Your task to perform on an android device: Toggle the flashlight Image 0: 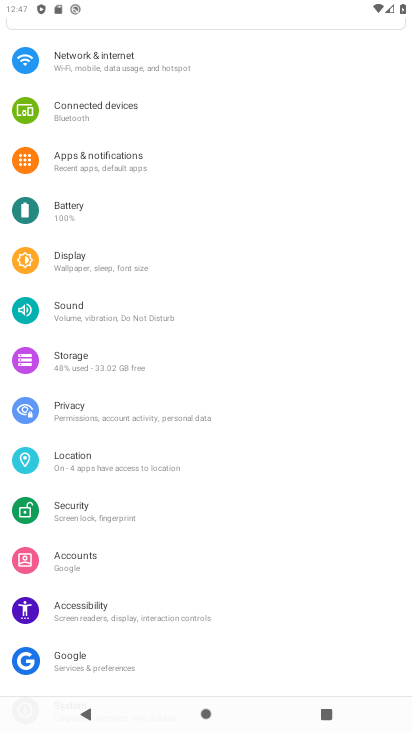
Step 0: press home button
Your task to perform on an android device: Toggle the flashlight Image 1: 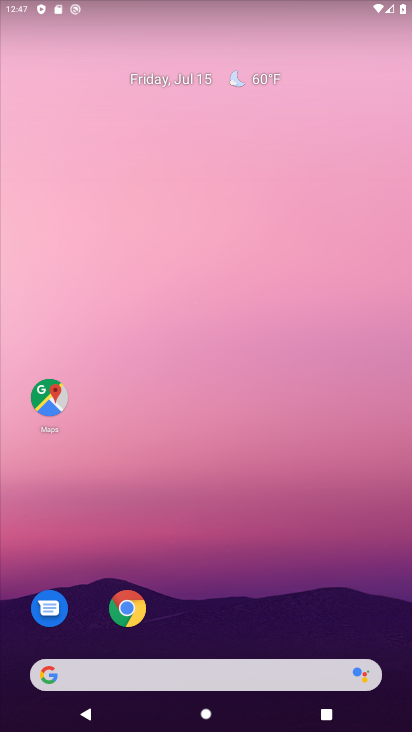
Step 1: task complete